Your task to perform on an android device: allow cookies in the chrome app Image 0: 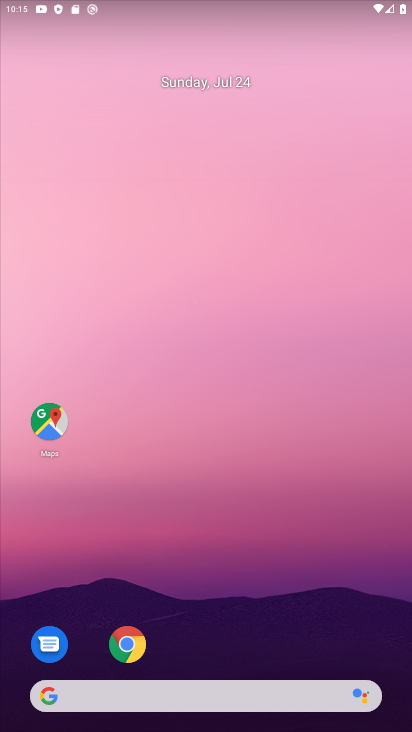
Step 0: press home button
Your task to perform on an android device: allow cookies in the chrome app Image 1: 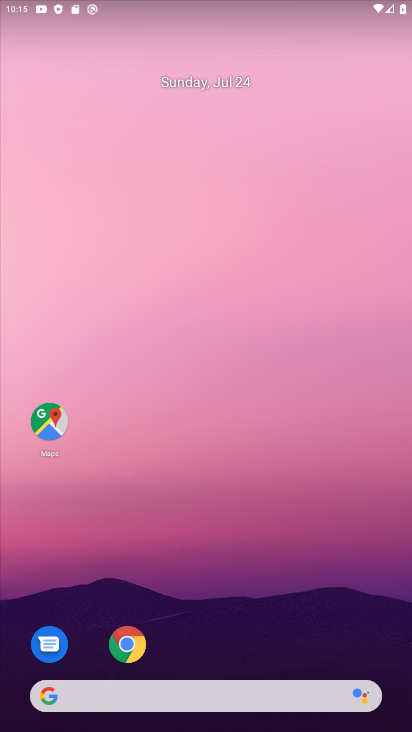
Step 1: click (129, 646)
Your task to perform on an android device: allow cookies in the chrome app Image 2: 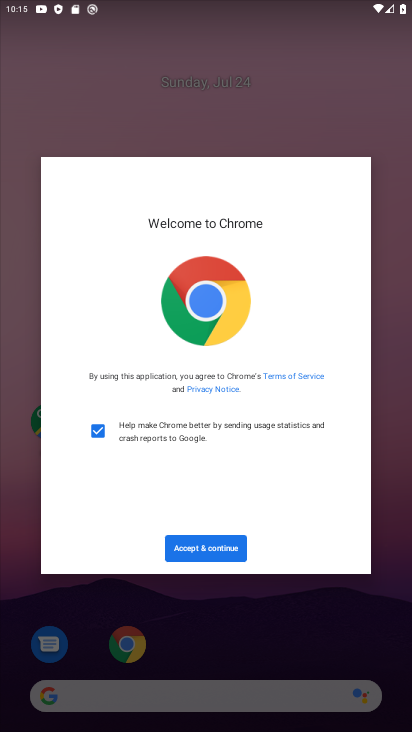
Step 2: click (200, 554)
Your task to perform on an android device: allow cookies in the chrome app Image 3: 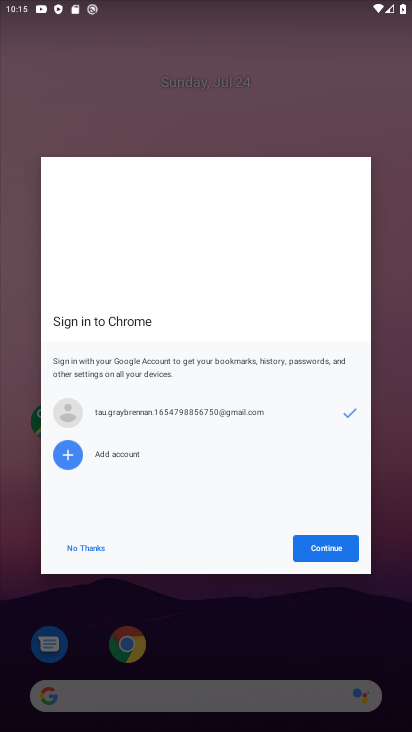
Step 3: click (76, 553)
Your task to perform on an android device: allow cookies in the chrome app Image 4: 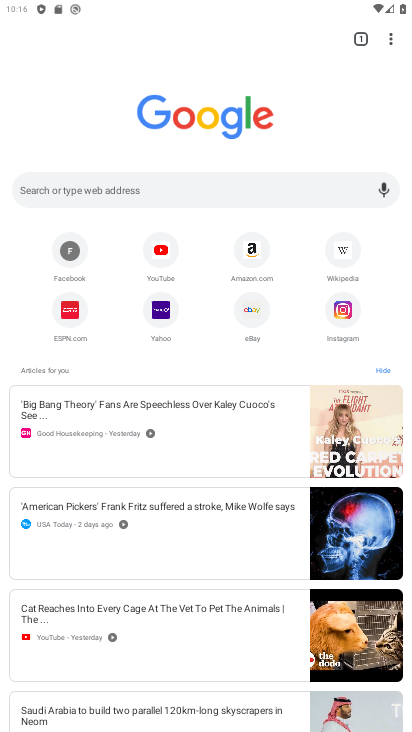
Step 4: click (392, 43)
Your task to perform on an android device: allow cookies in the chrome app Image 5: 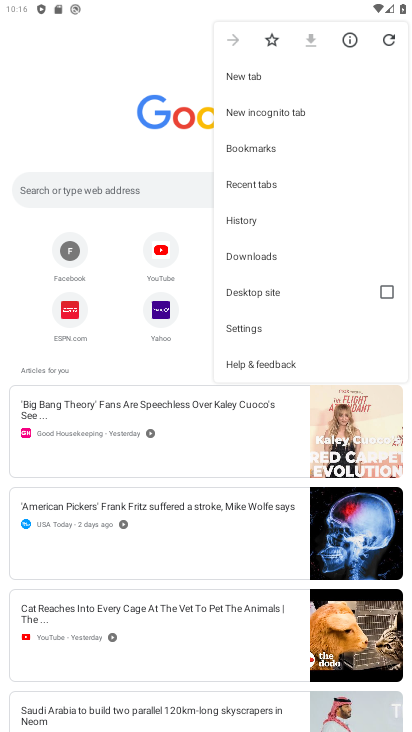
Step 5: click (247, 333)
Your task to perform on an android device: allow cookies in the chrome app Image 6: 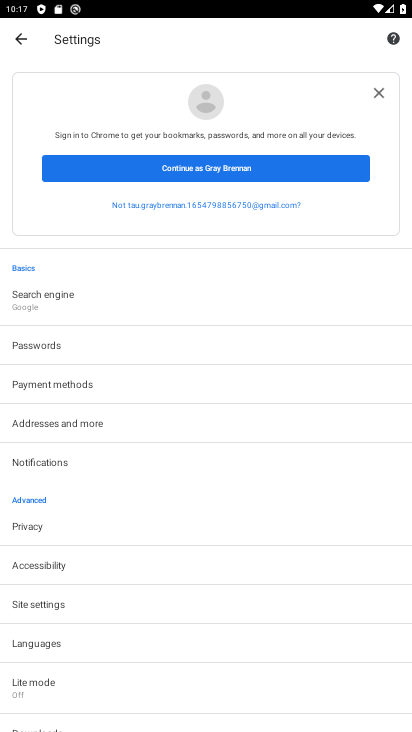
Step 6: click (50, 603)
Your task to perform on an android device: allow cookies in the chrome app Image 7: 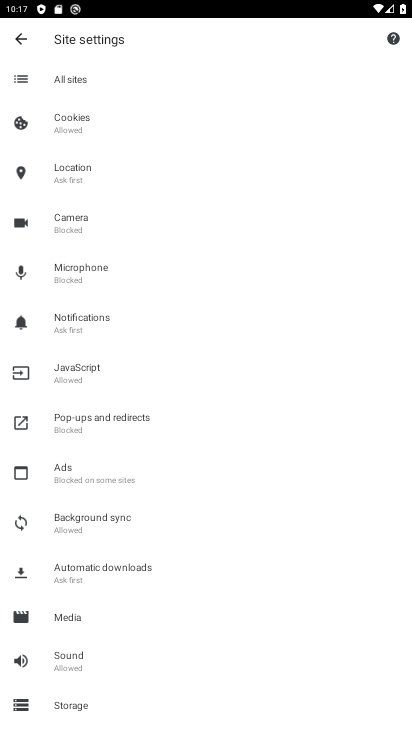
Step 7: click (94, 135)
Your task to perform on an android device: allow cookies in the chrome app Image 8: 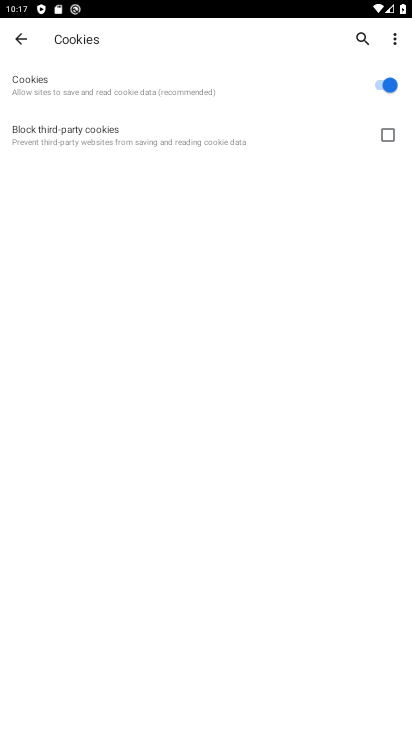
Step 8: task complete